Your task to perform on an android device: When is my next appointment? Image 0: 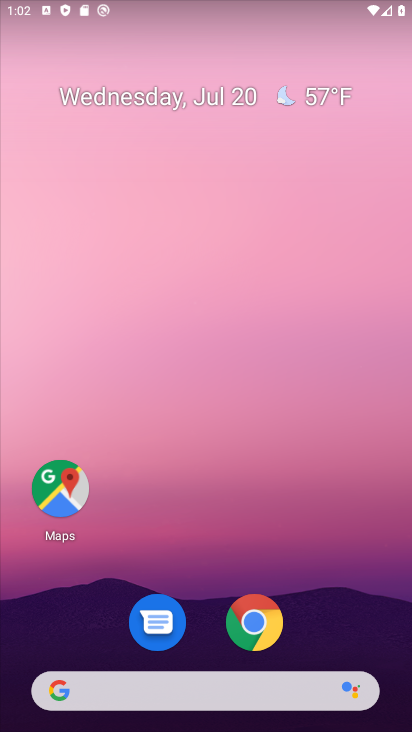
Step 0: drag from (212, 599) to (197, 190)
Your task to perform on an android device: When is my next appointment? Image 1: 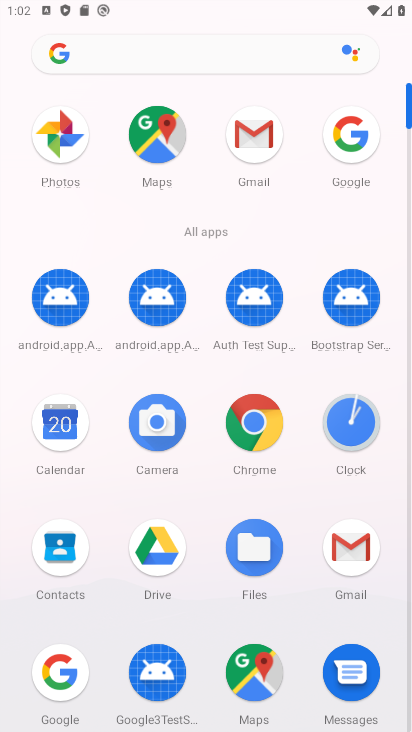
Step 1: click (48, 453)
Your task to perform on an android device: When is my next appointment? Image 2: 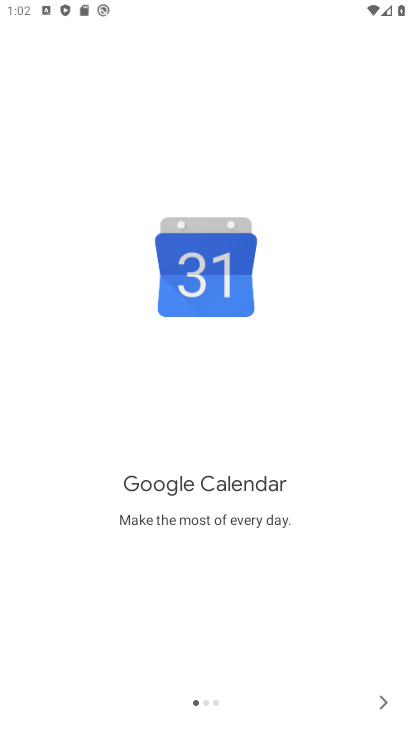
Step 2: click (381, 692)
Your task to perform on an android device: When is my next appointment? Image 3: 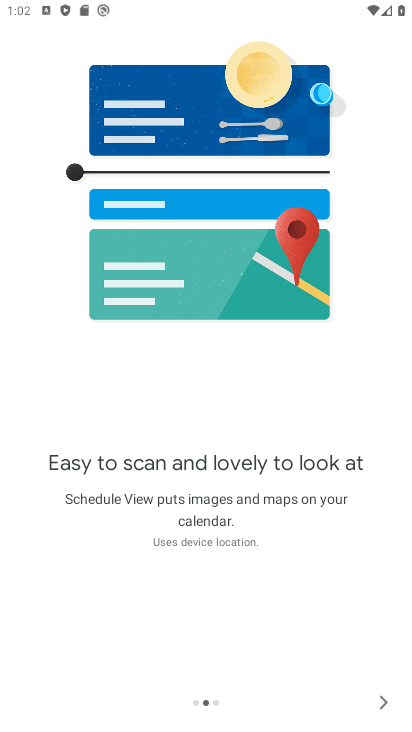
Step 3: click (378, 697)
Your task to perform on an android device: When is my next appointment? Image 4: 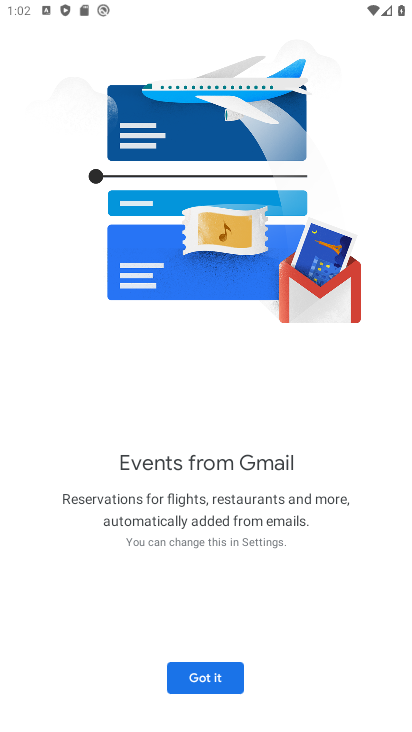
Step 4: click (381, 707)
Your task to perform on an android device: When is my next appointment? Image 5: 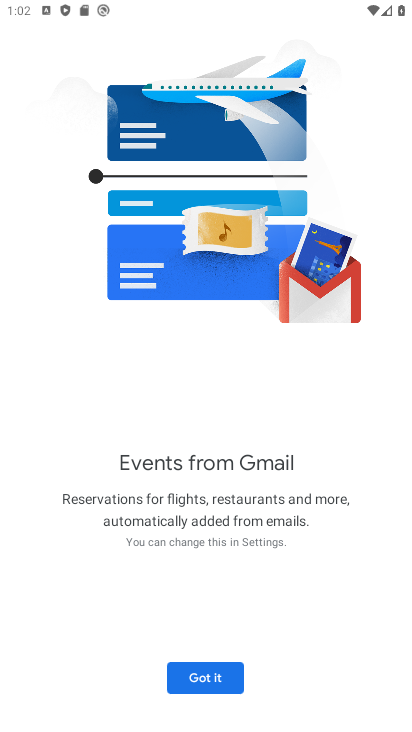
Step 5: click (194, 688)
Your task to perform on an android device: When is my next appointment? Image 6: 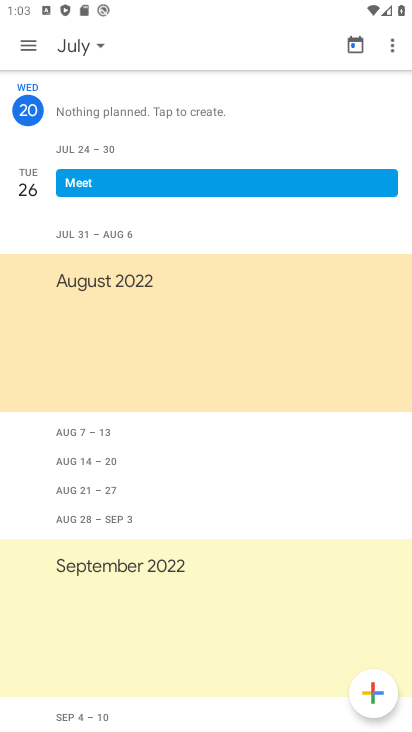
Step 6: click (108, 47)
Your task to perform on an android device: When is my next appointment? Image 7: 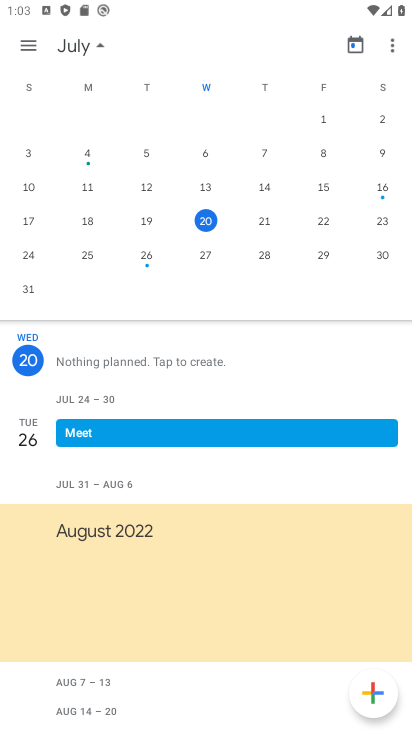
Step 7: click (254, 218)
Your task to perform on an android device: When is my next appointment? Image 8: 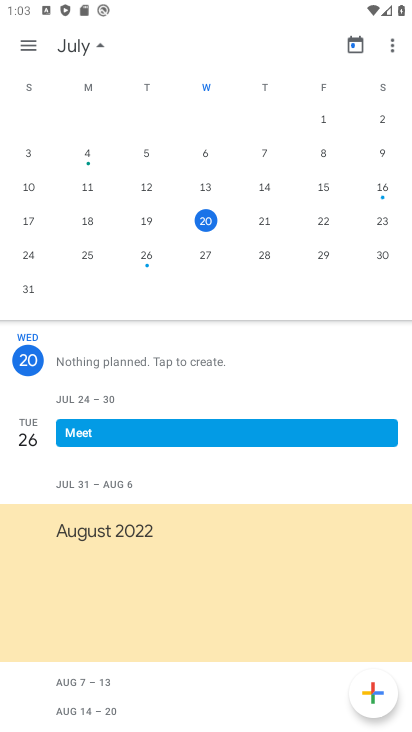
Step 8: click (362, 225)
Your task to perform on an android device: When is my next appointment? Image 9: 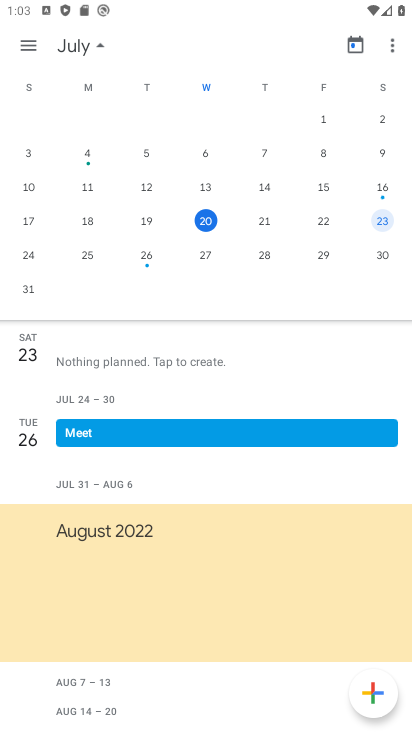
Step 9: click (1, 263)
Your task to perform on an android device: When is my next appointment? Image 10: 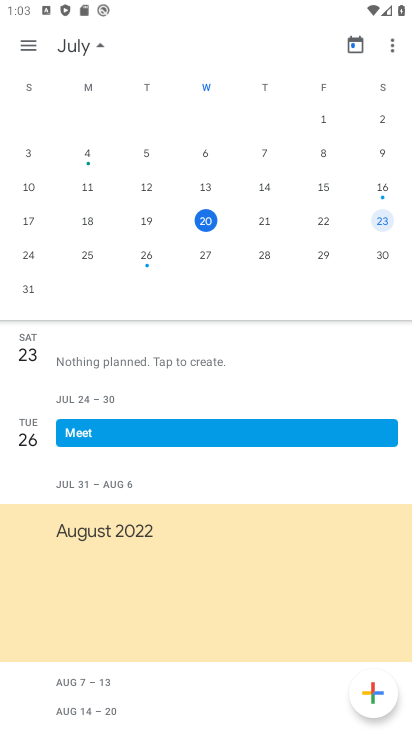
Step 10: task complete